Your task to perform on an android device: Go to Maps Image 0: 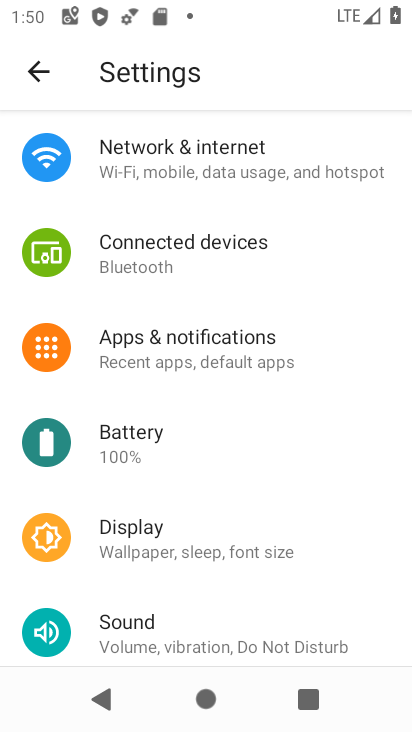
Step 0: press home button
Your task to perform on an android device: Go to Maps Image 1: 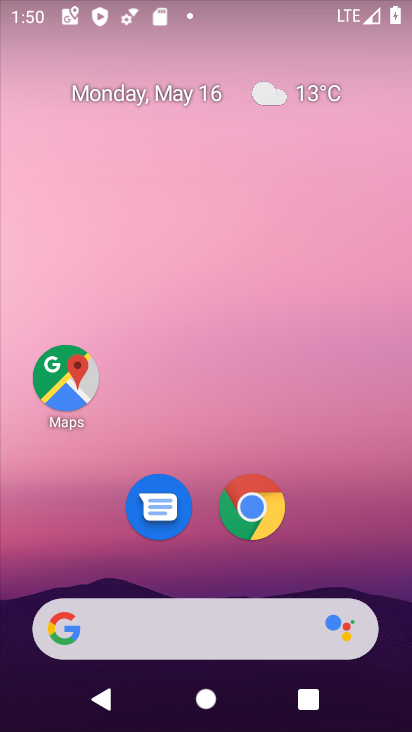
Step 1: click (64, 397)
Your task to perform on an android device: Go to Maps Image 2: 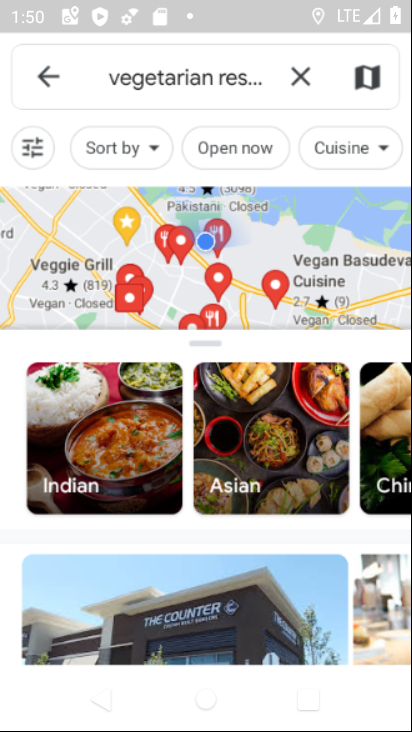
Step 2: task complete